Your task to perform on an android device: Show the shopping cart on newegg. Search for "beats solo 3" on newegg, select the first entry, and add it to the cart. Image 0: 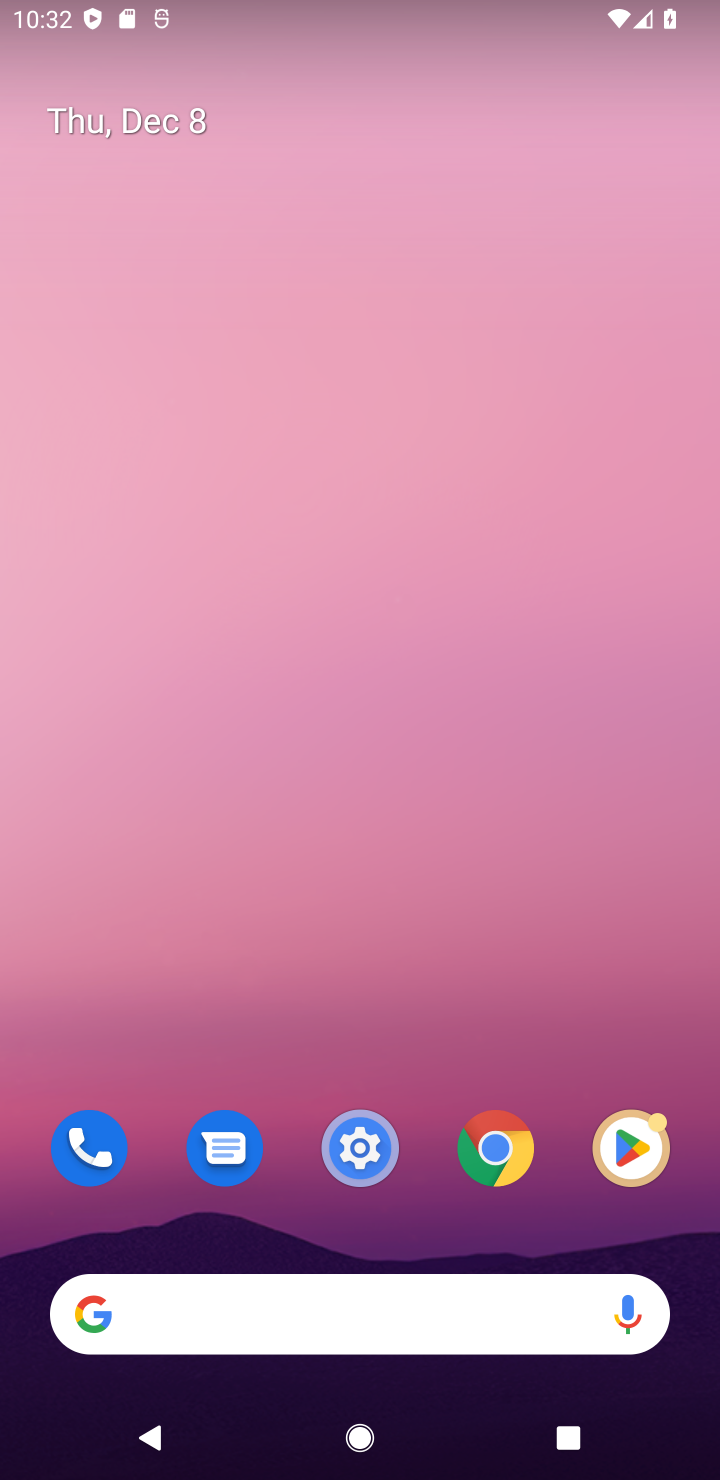
Step 0: click (275, 1325)
Your task to perform on an android device: Show the shopping cart on newegg. Search for "beats solo 3" on newegg, select the first entry, and add it to the cart. Image 1: 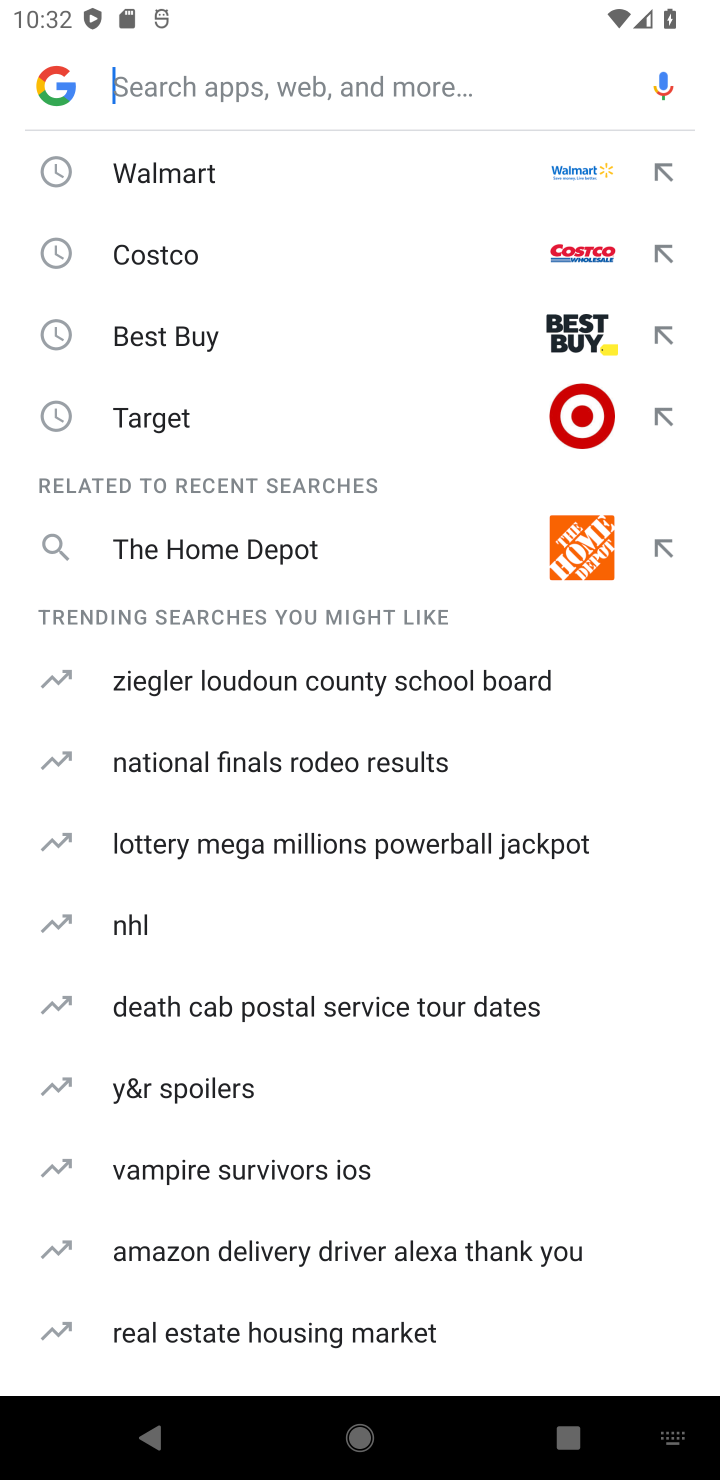
Step 1: type "newegg"
Your task to perform on an android device: Show the shopping cart on newegg. Search for "beats solo 3" on newegg, select the first entry, and add it to the cart. Image 2: 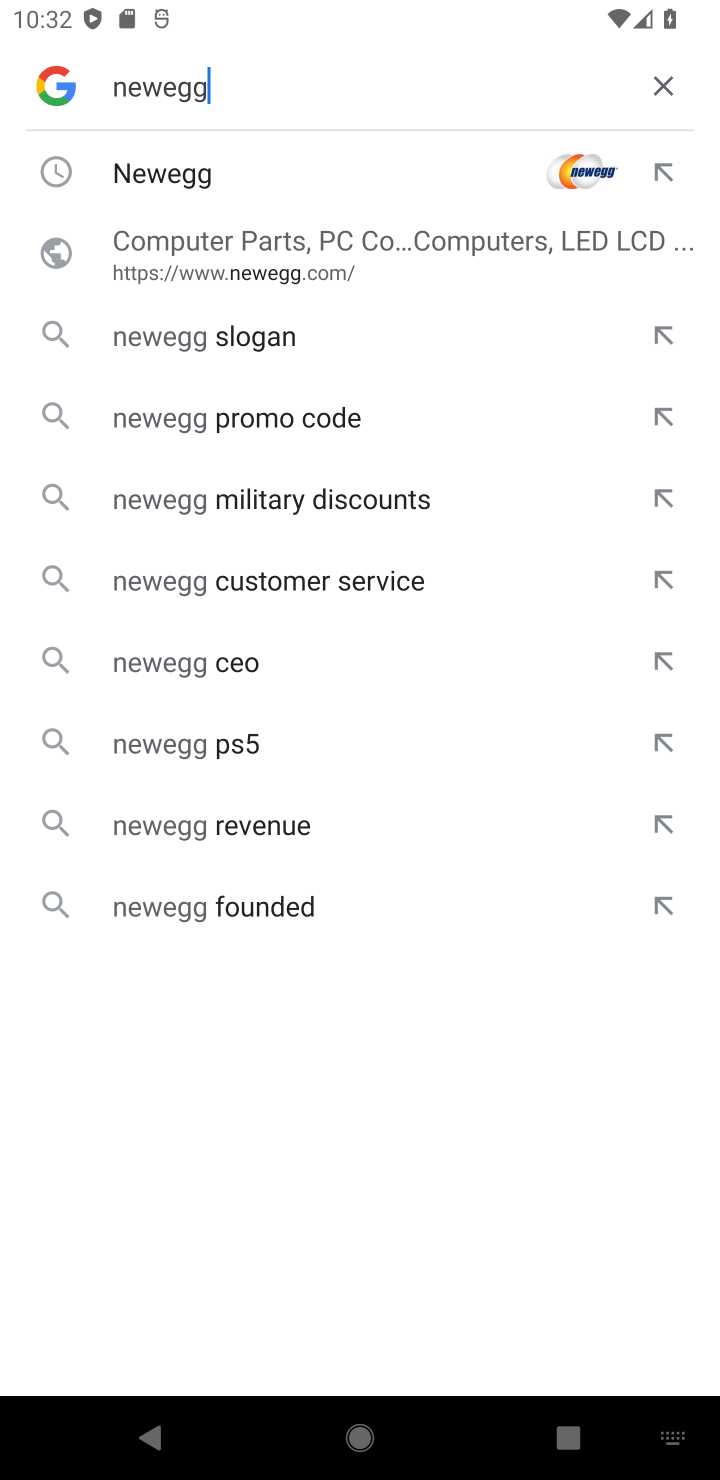
Step 2: click (143, 167)
Your task to perform on an android device: Show the shopping cart on newegg. Search for "beats solo 3" on newegg, select the first entry, and add it to the cart. Image 3: 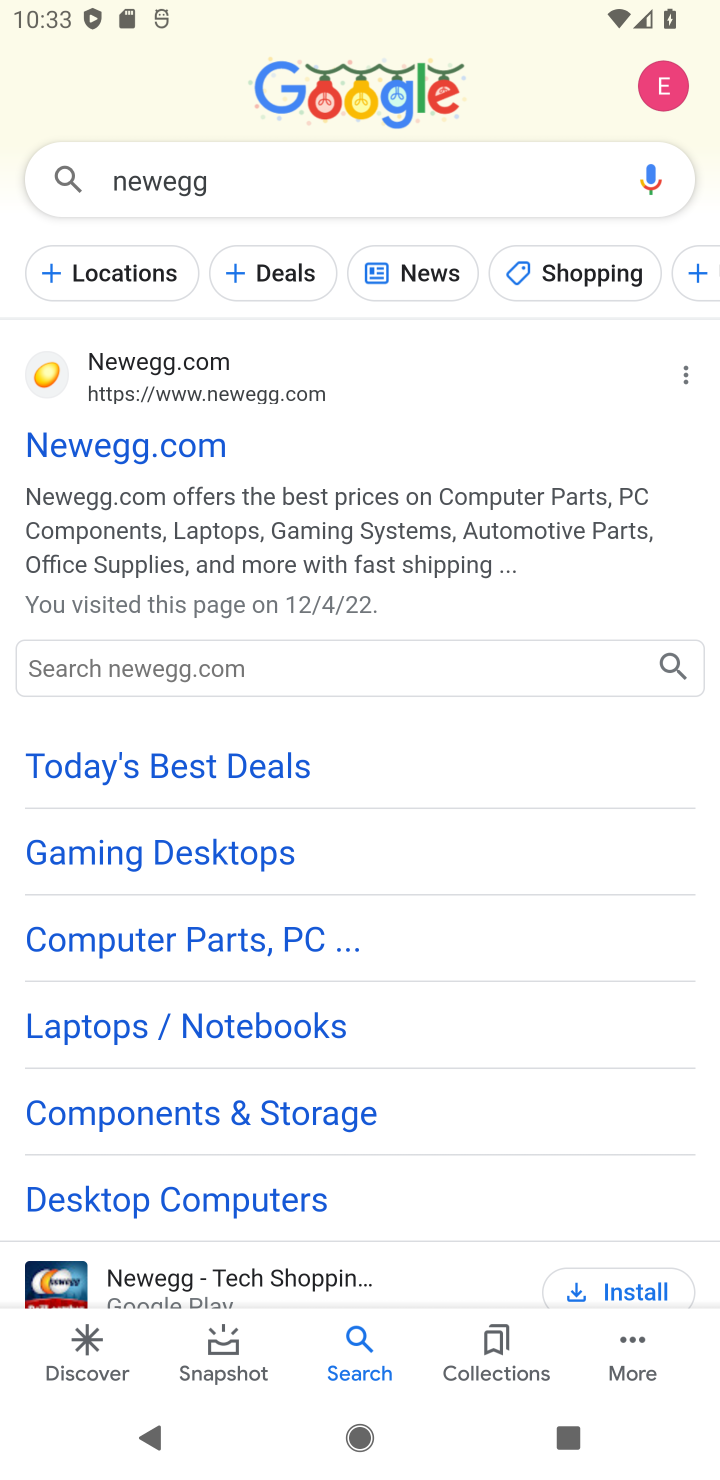
Step 3: click (125, 429)
Your task to perform on an android device: Show the shopping cart on newegg. Search for "beats solo 3" on newegg, select the first entry, and add it to the cart. Image 4: 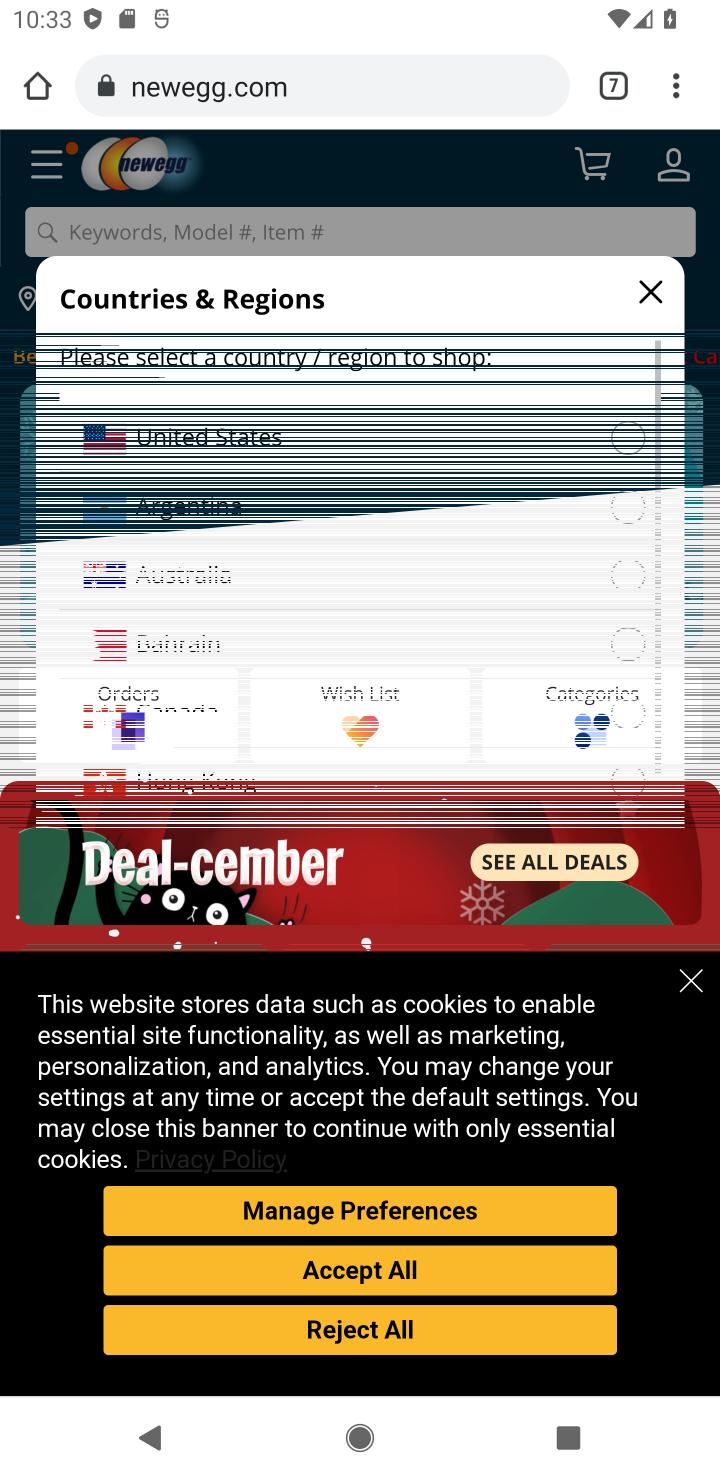
Step 4: click (353, 1271)
Your task to perform on an android device: Show the shopping cart on newegg. Search for "beats solo 3" on newegg, select the first entry, and add it to the cart. Image 5: 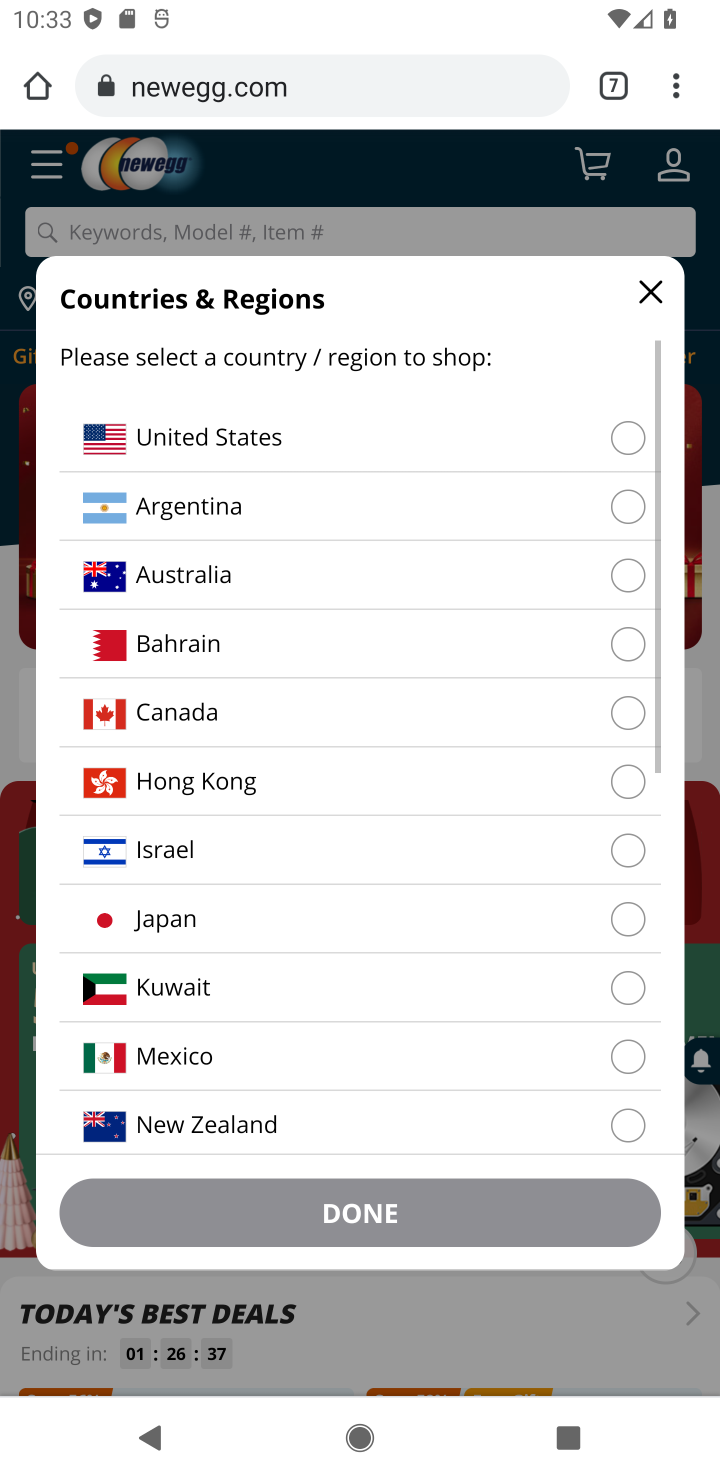
Step 5: click (620, 432)
Your task to perform on an android device: Show the shopping cart on newegg. Search for "beats solo 3" on newegg, select the first entry, and add it to the cart. Image 6: 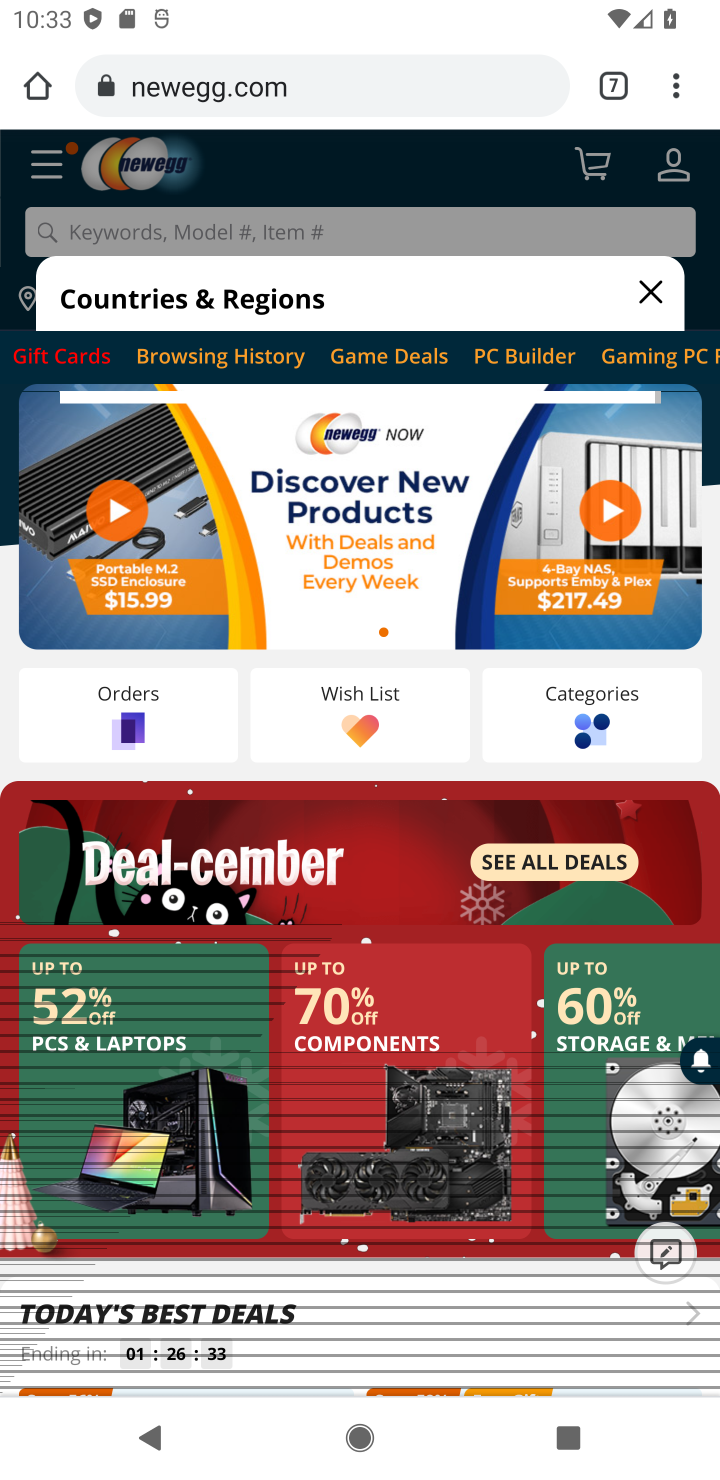
Step 6: click (362, 1214)
Your task to perform on an android device: Show the shopping cart on newegg. Search for "beats solo 3" on newegg, select the first entry, and add it to the cart. Image 7: 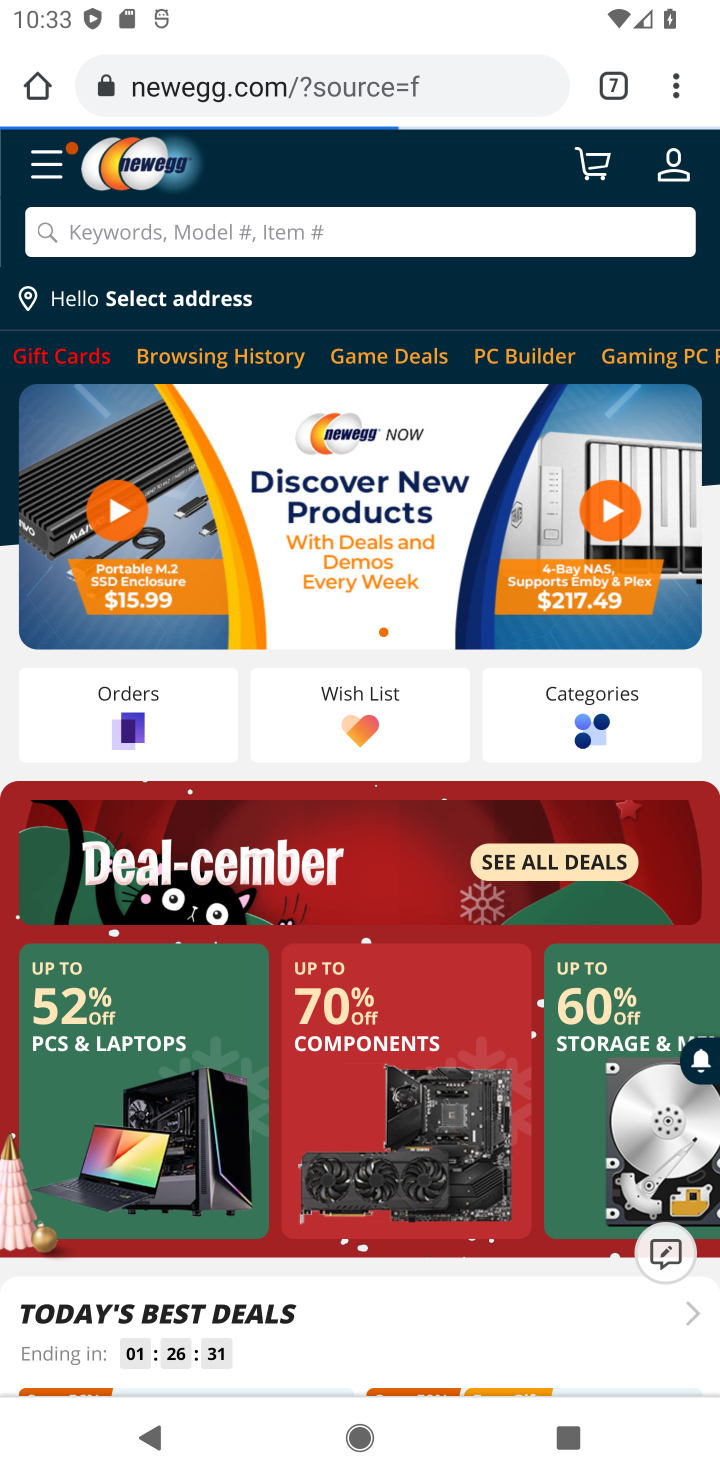
Step 7: click (388, 1232)
Your task to perform on an android device: Show the shopping cart on newegg. Search for "beats solo 3" on newegg, select the first entry, and add it to the cart. Image 8: 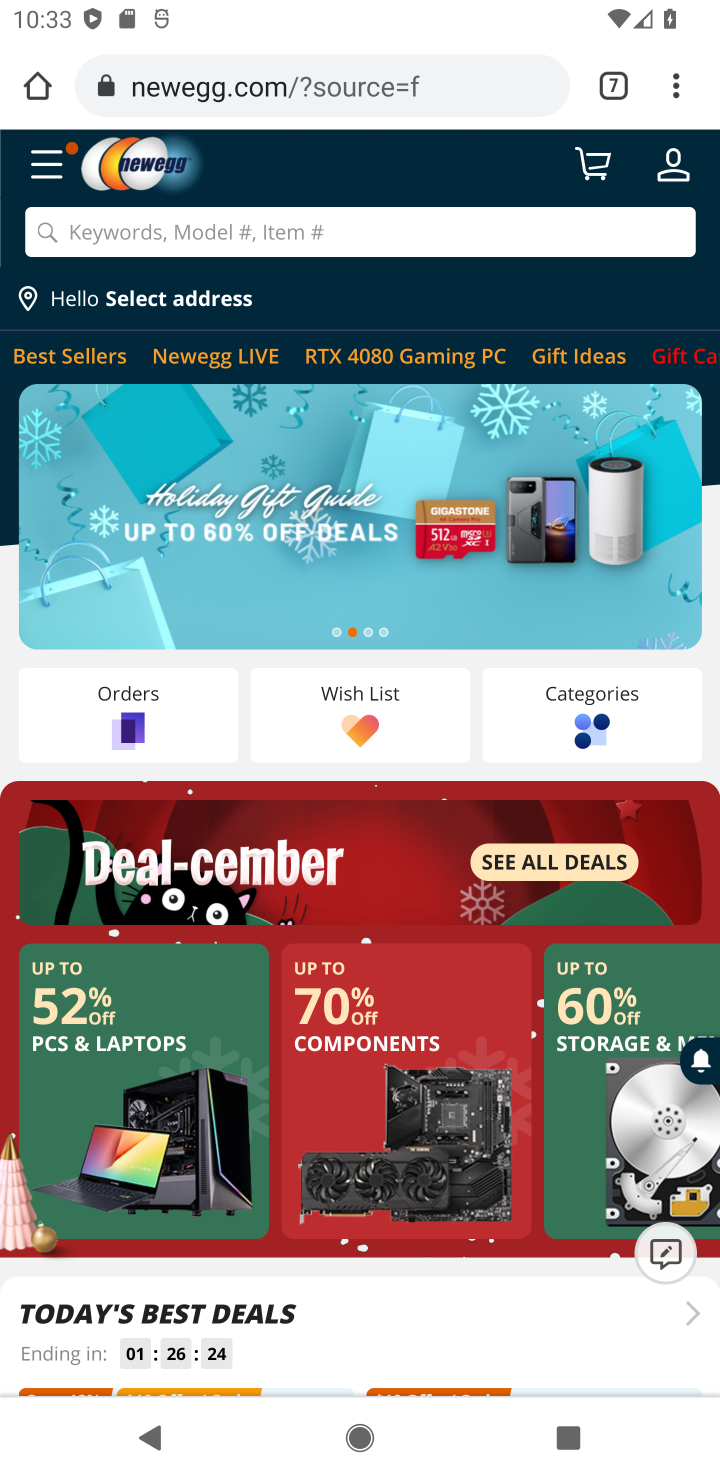
Step 8: click (593, 161)
Your task to perform on an android device: Show the shopping cart on newegg. Search for "beats solo 3" on newegg, select the first entry, and add it to the cart. Image 9: 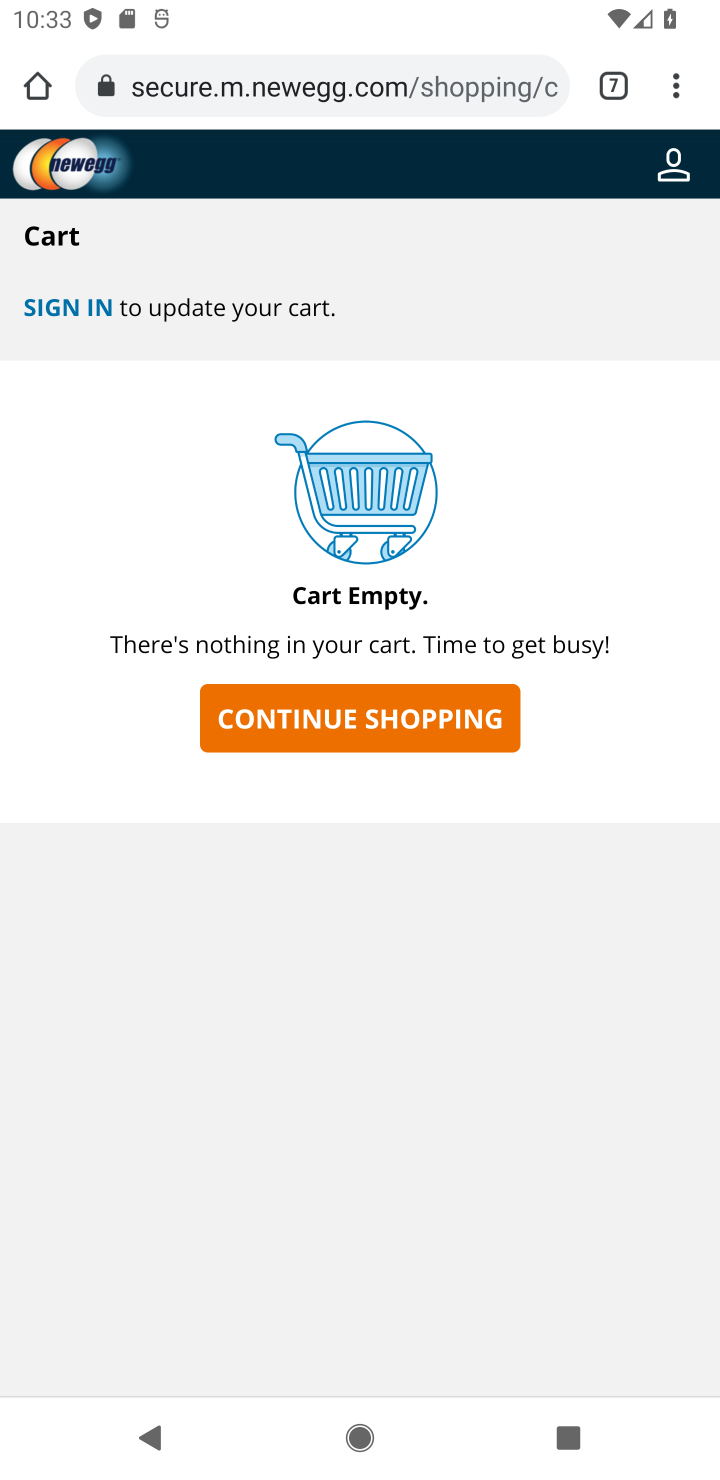
Step 9: click (302, 705)
Your task to perform on an android device: Show the shopping cart on newegg. Search for "beats solo 3" on newegg, select the first entry, and add it to the cart. Image 10: 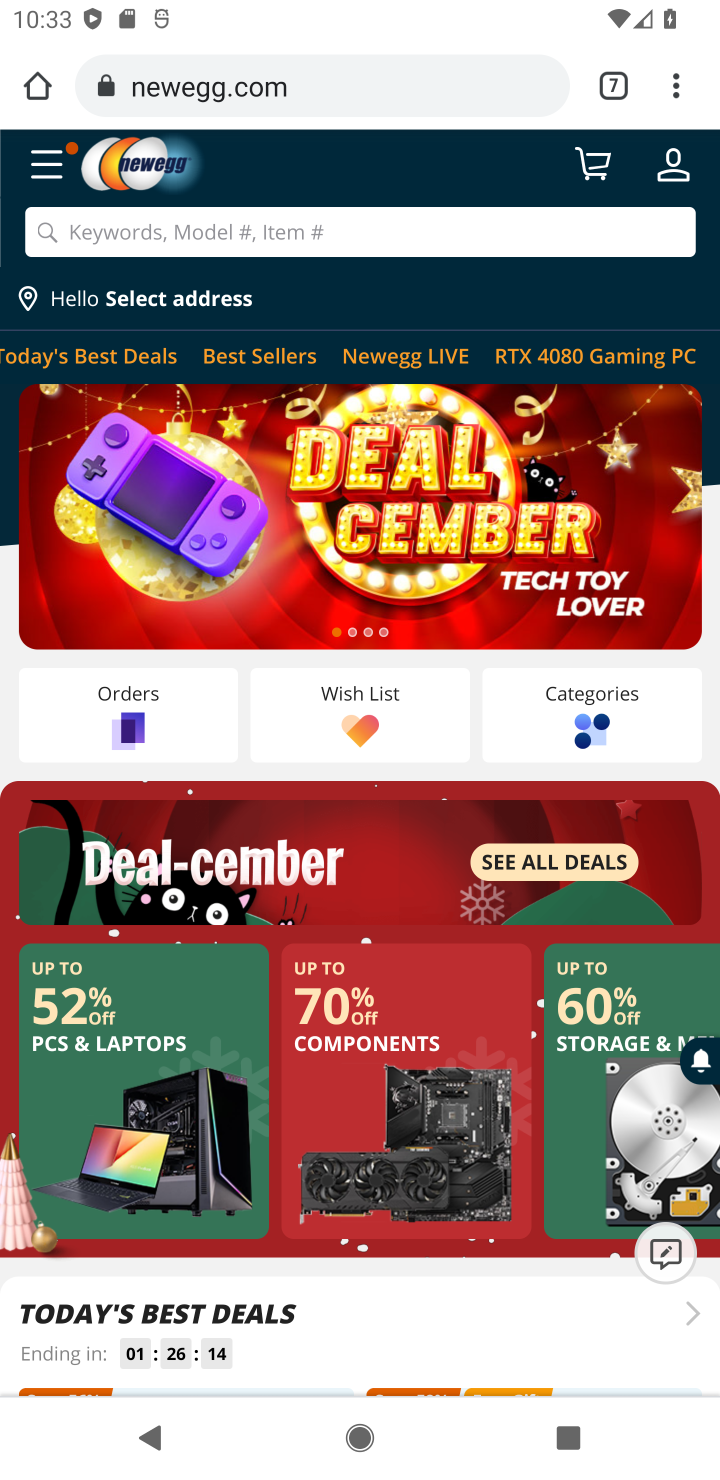
Step 10: click (281, 230)
Your task to perform on an android device: Show the shopping cart on newegg. Search for "beats solo 3" on newegg, select the first entry, and add it to the cart. Image 11: 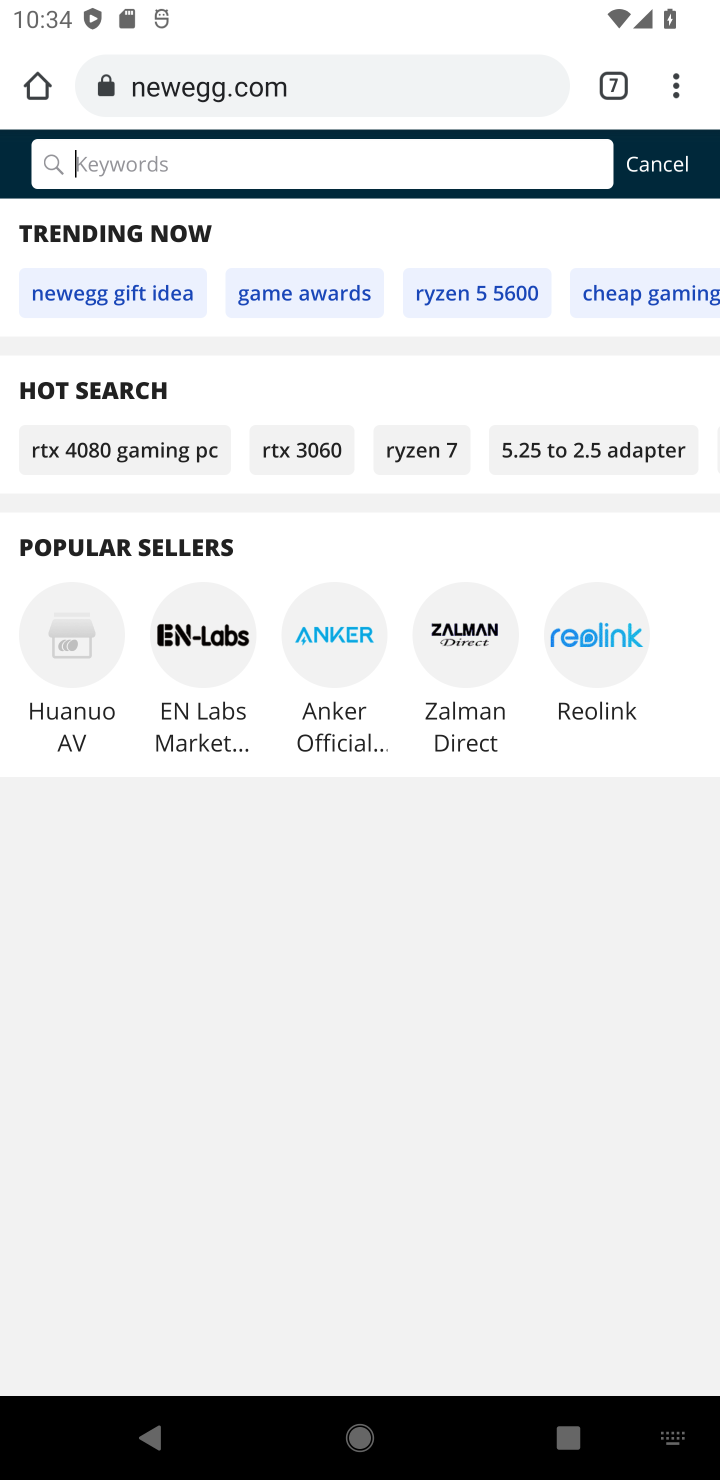
Step 11: type "beats solo 3"
Your task to perform on an android device: Show the shopping cart on newegg. Search for "beats solo 3" on newegg, select the first entry, and add it to the cart. Image 12: 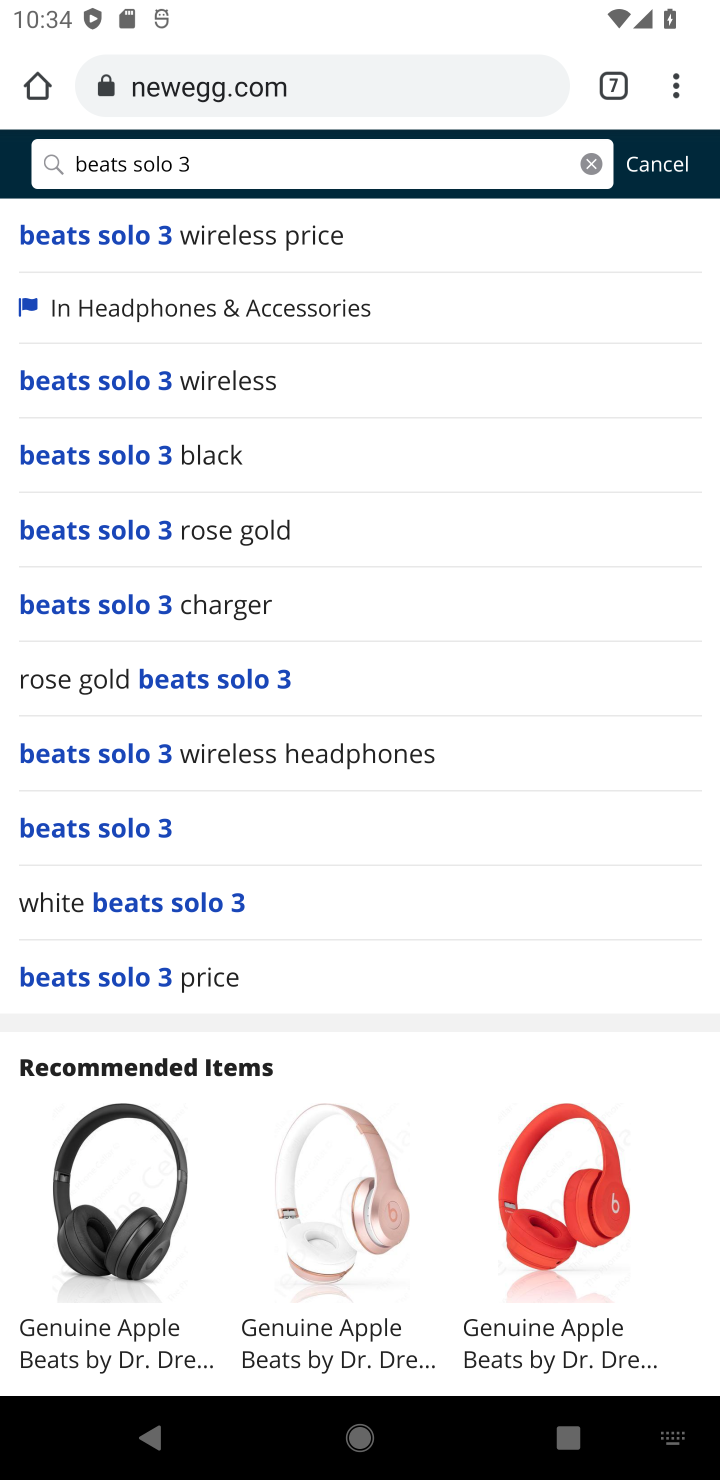
Step 12: click (144, 828)
Your task to perform on an android device: Show the shopping cart on newegg. Search for "beats solo 3" on newegg, select the first entry, and add it to the cart. Image 13: 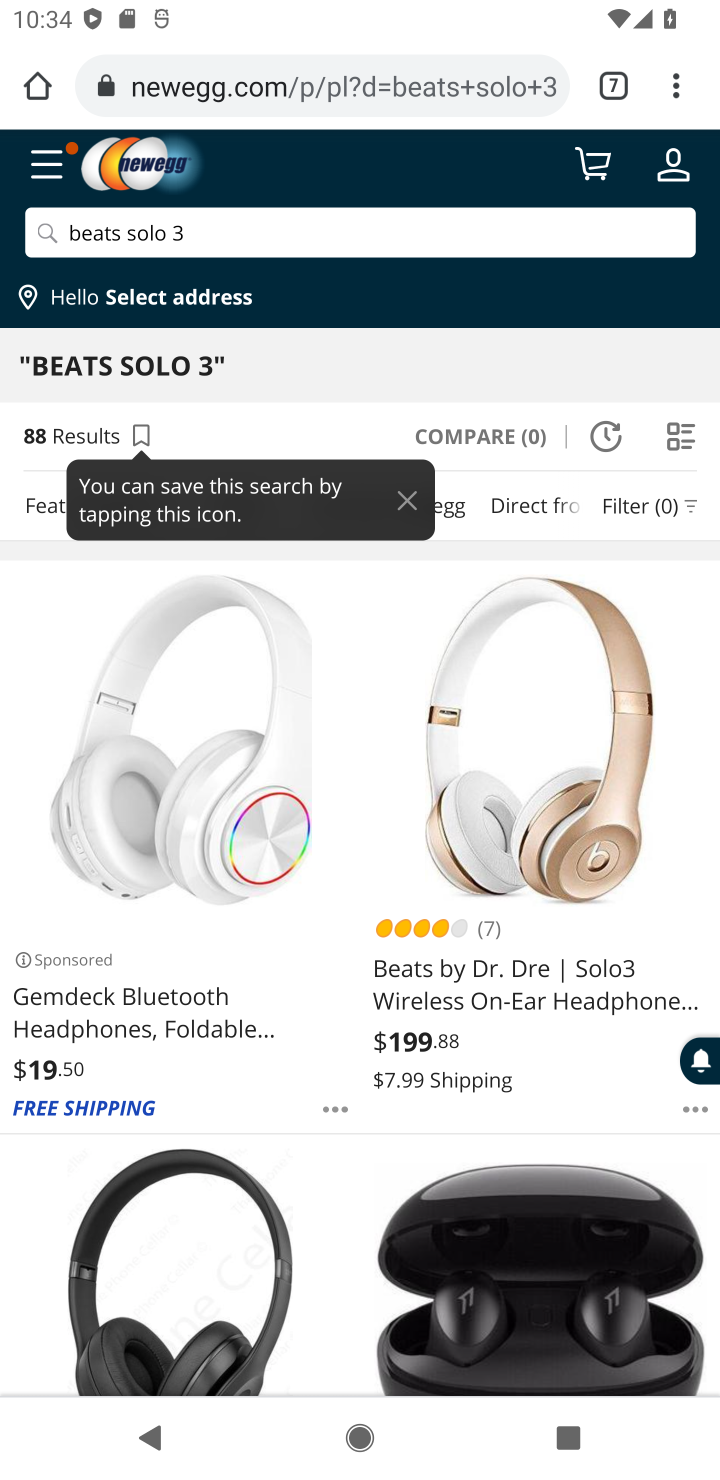
Step 13: click (210, 843)
Your task to perform on an android device: Show the shopping cart on newegg. Search for "beats solo 3" on newegg, select the first entry, and add it to the cart. Image 14: 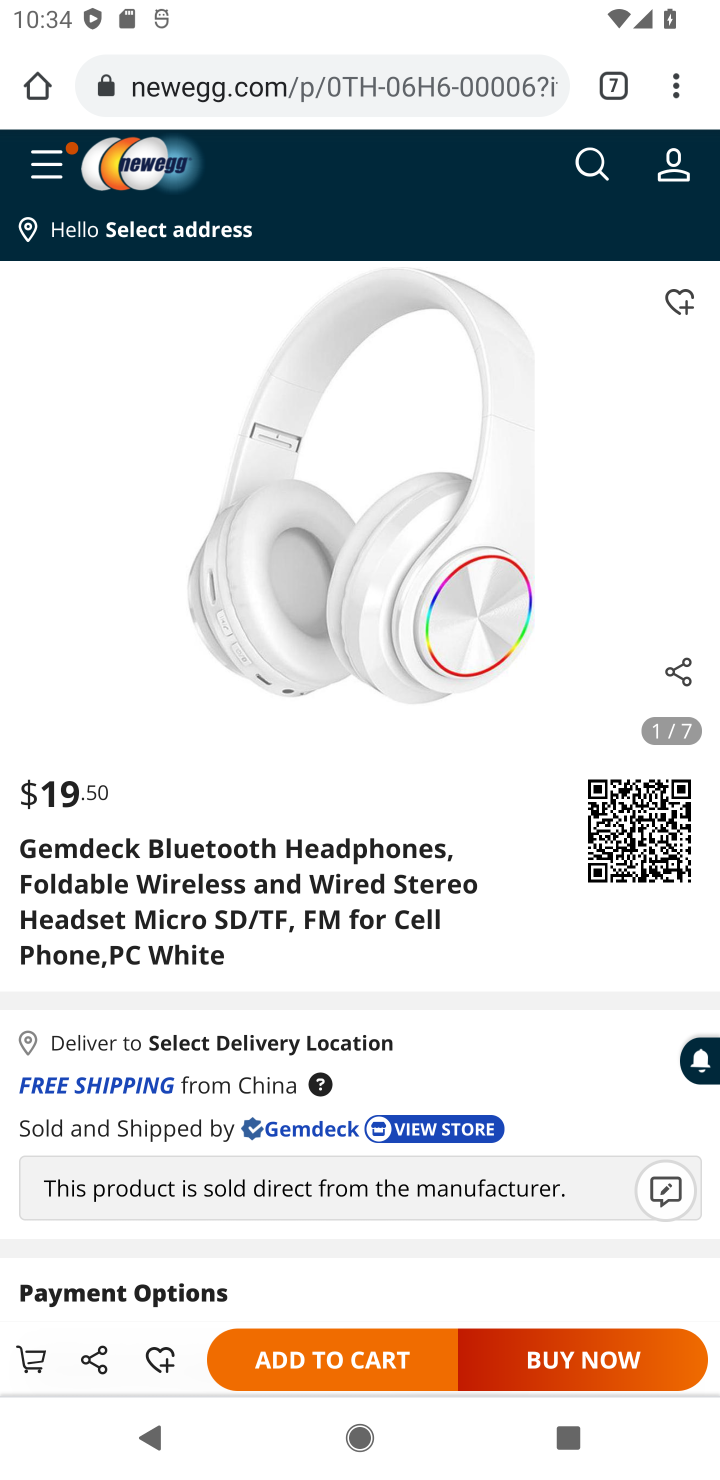
Step 14: click (351, 1361)
Your task to perform on an android device: Show the shopping cart on newegg. Search for "beats solo 3" on newegg, select the first entry, and add it to the cart. Image 15: 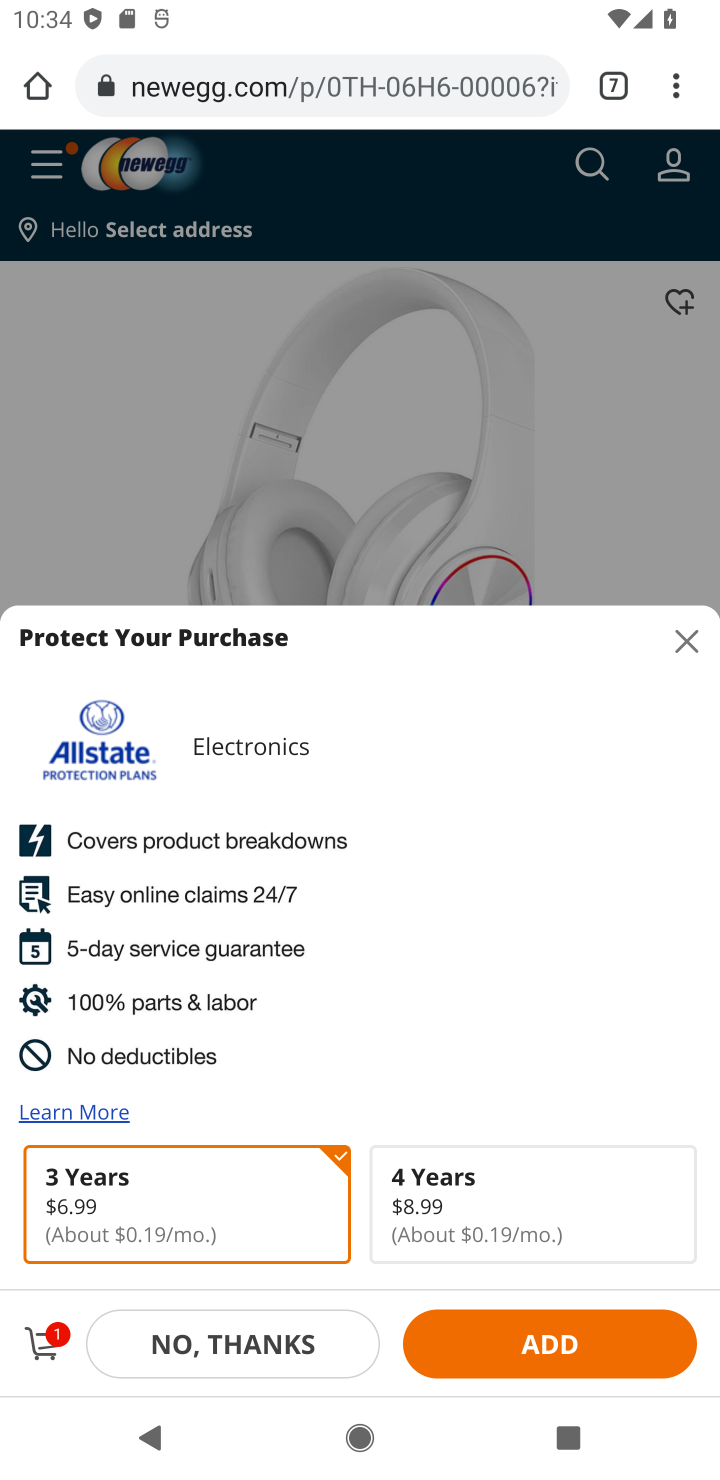
Step 15: click (255, 1335)
Your task to perform on an android device: Show the shopping cart on newegg. Search for "beats solo 3" on newegg, select the first entry, and add it to the cart. Image 16: 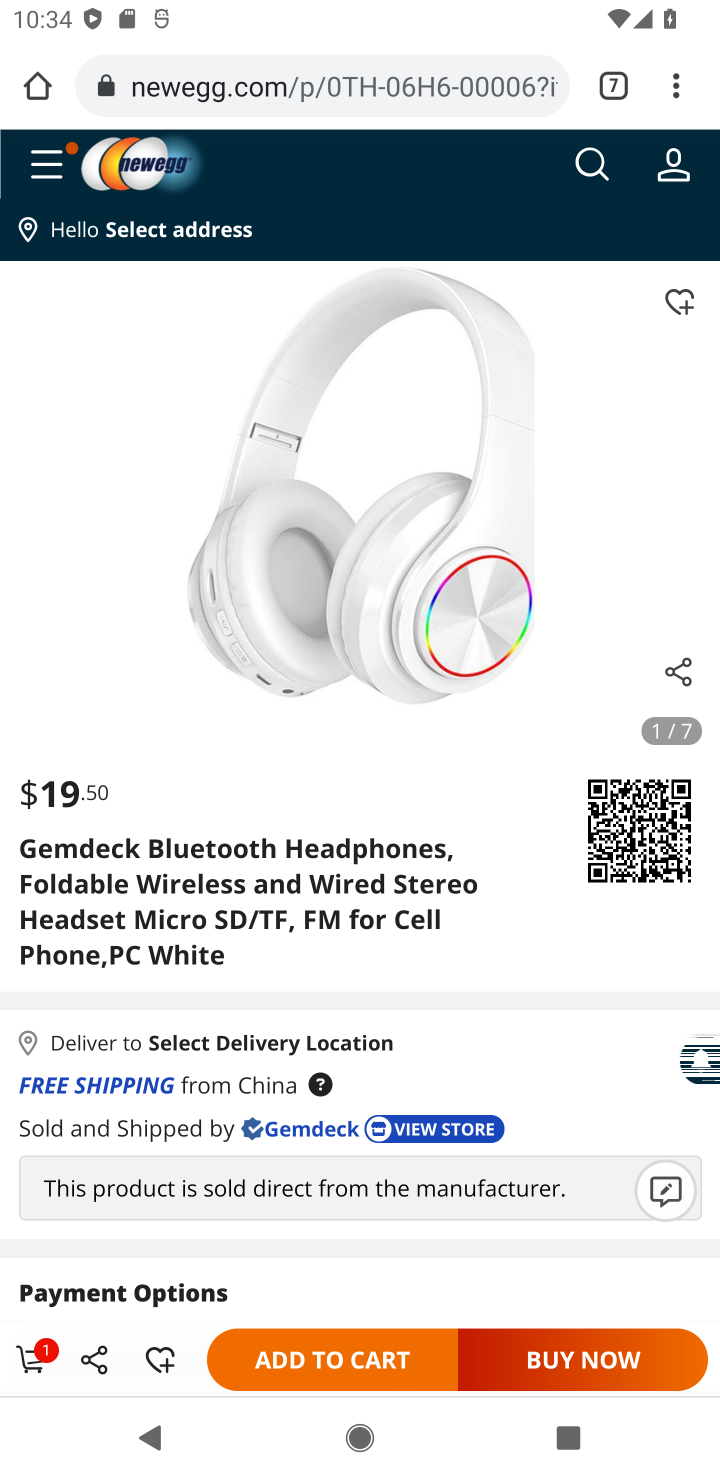
Step 16: task complete